Your task to perform on an android device: Open calendar and show me the second week of next month Image 0: 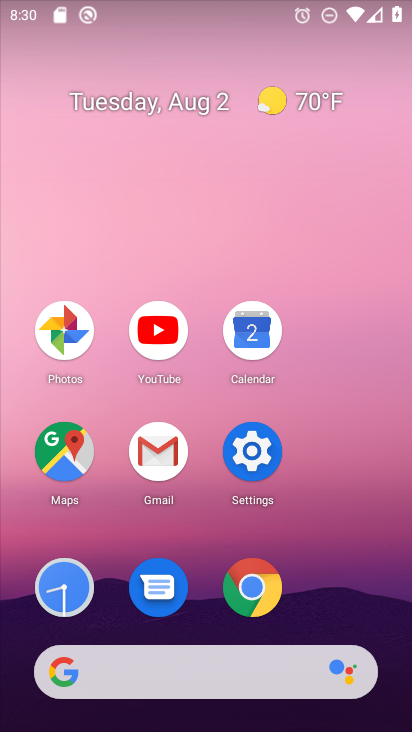
Step 0: click (247, 335)
Your task to perform on an android device: Open calendar and show me the second week of next month Image 1: 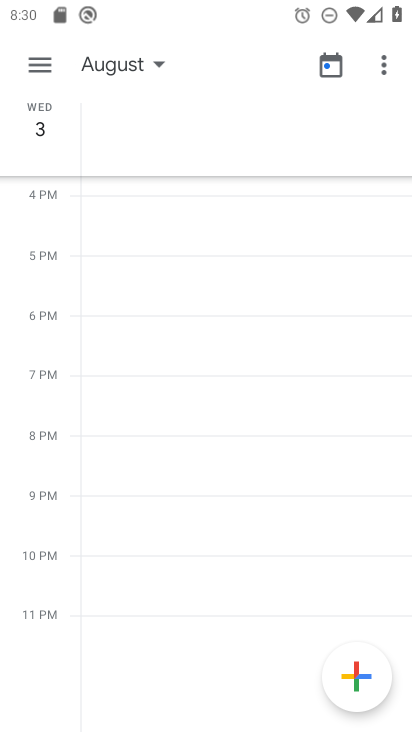
Step 1: click (38, 57)
Your task to perform on an android device: Open calendar and show me the second week of next month Image 2: 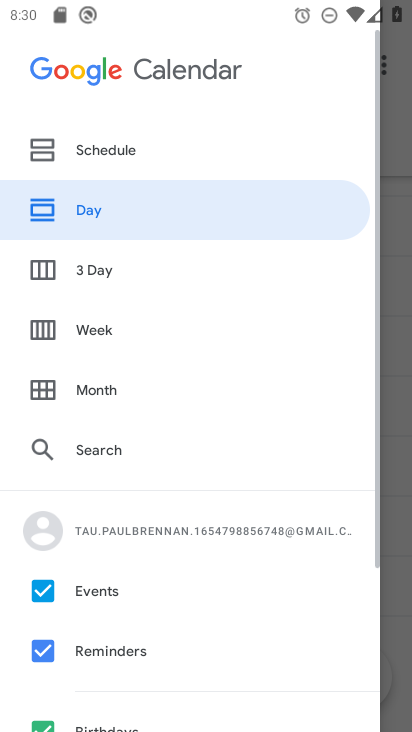
Step 2: click (92, 323)
Your task to perform on an android device: Open calendar and show me the second week of next month Image 3: 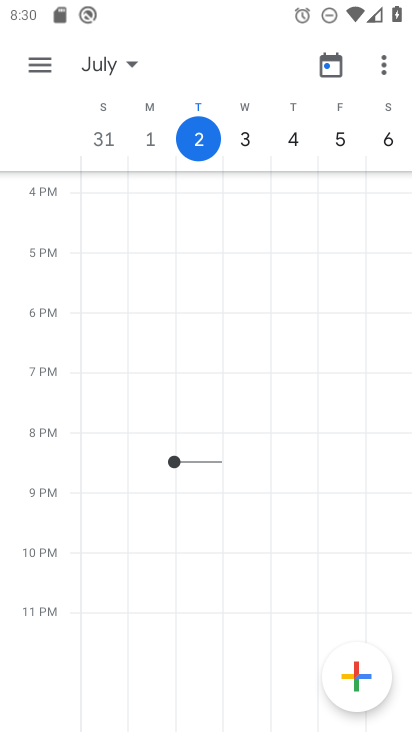
Step 3: click (135, 62)
Your task to perform on an android device: Open calendar and show me the second week of next month Image 4: 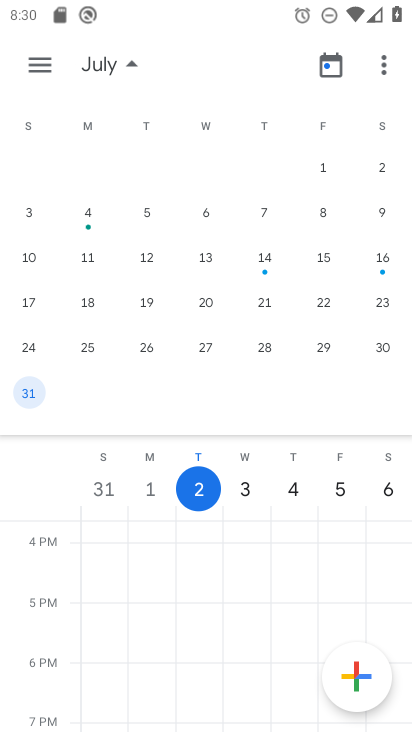
Step 4: drag from (390, 260) to (16, 146)
Your task to perform on an android device: Open calendar and show me the second week of next month Image 5: 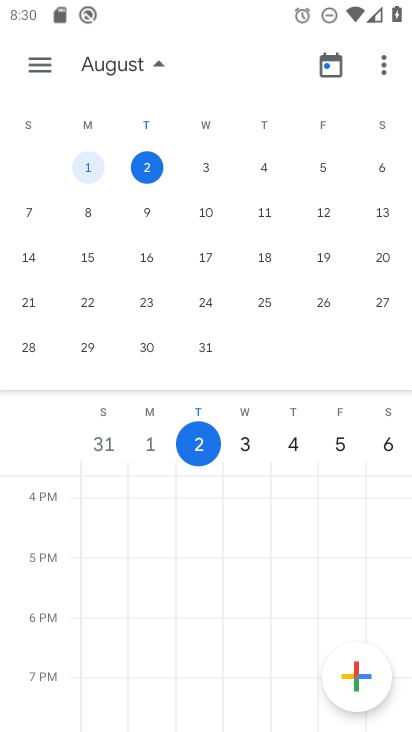
Step 5: drag from (322, 227) to (32, 143)
Your task to perform on an android device: Open calendar and show me the second week of next month Image 6: 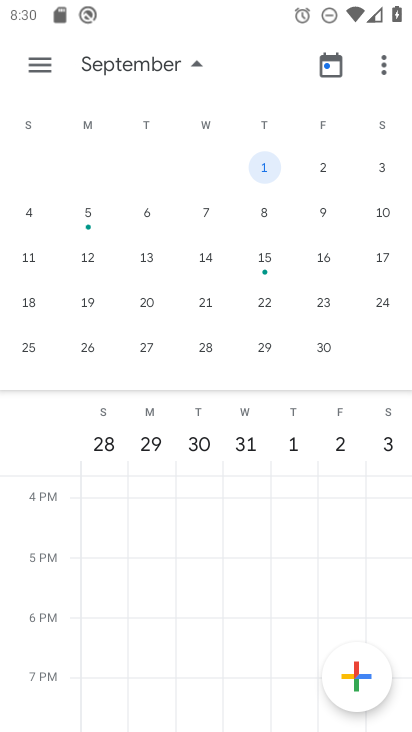
Step 6: click (142, 209)
Your task to perform on an android device: Open calendar and show me the second week of next month Image 7: 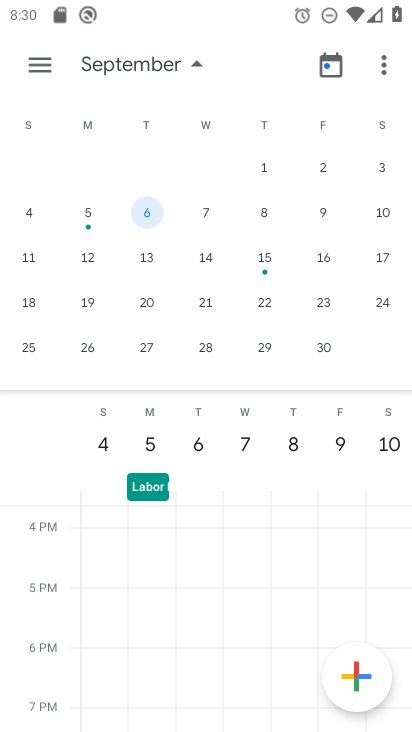
Step 7: task complete